Your task to perform on an android device: open app "Skype" Image 0: 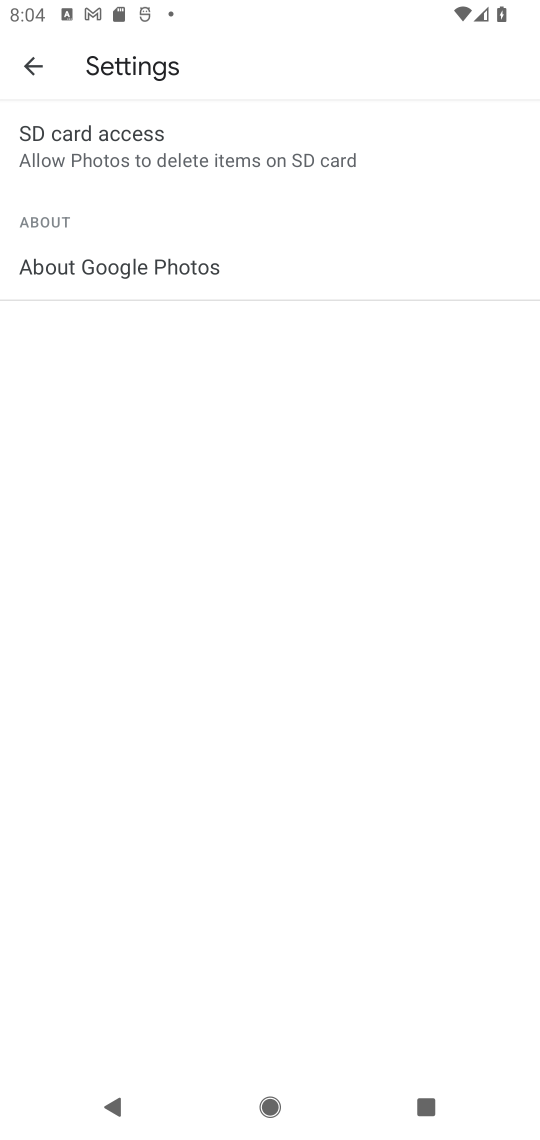
Step 0: press back button
Your task to perform on an android device: open app "Skype" Image 1: 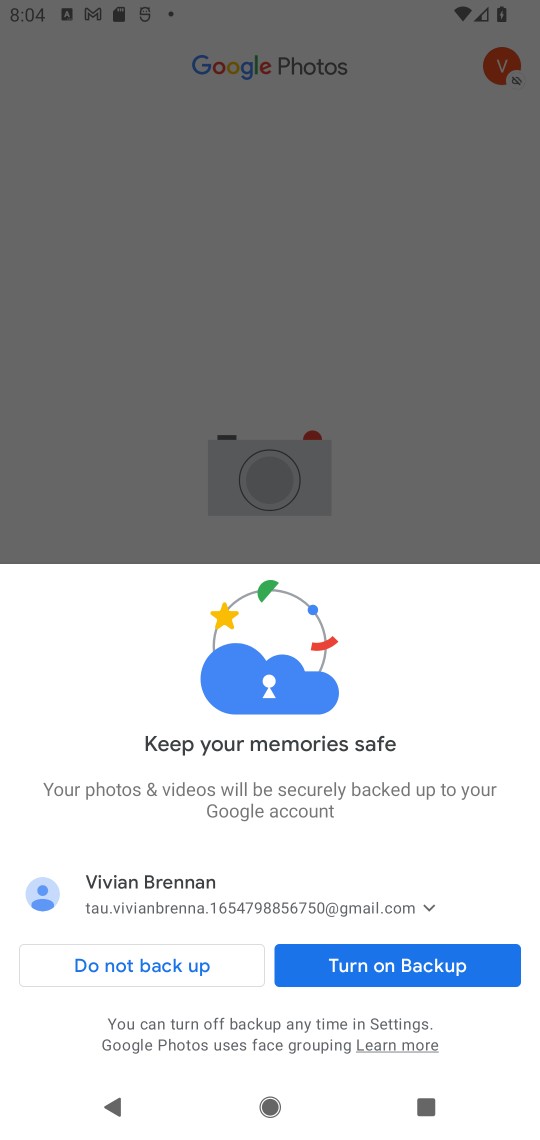
Step 1: press back button
Your task to perform on an android device: open app "Skype" Image 2: 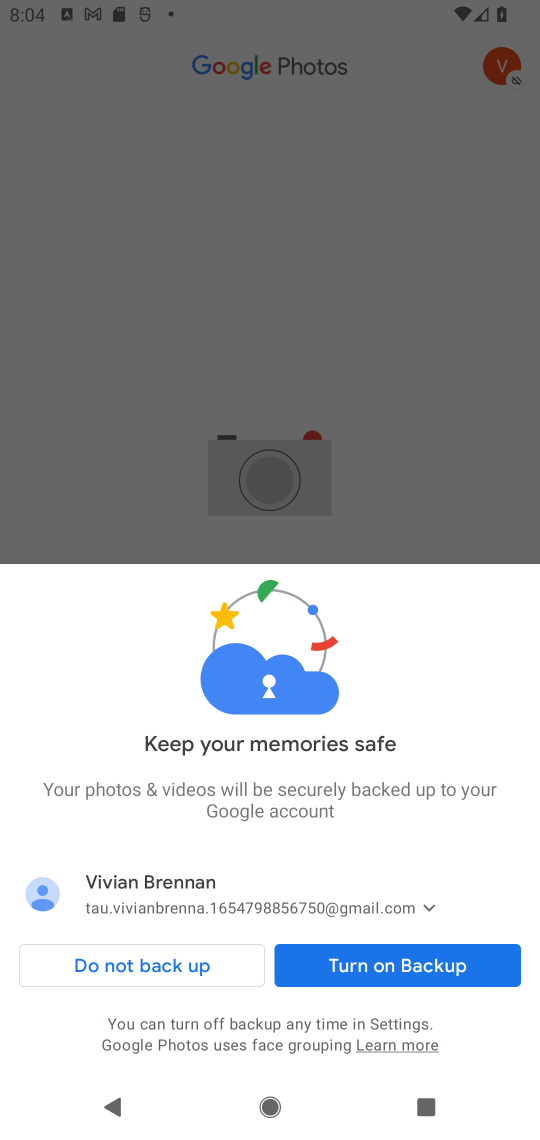
Step 2: press home button
Your task to perform on an android device: open app "Skype" Image 3: 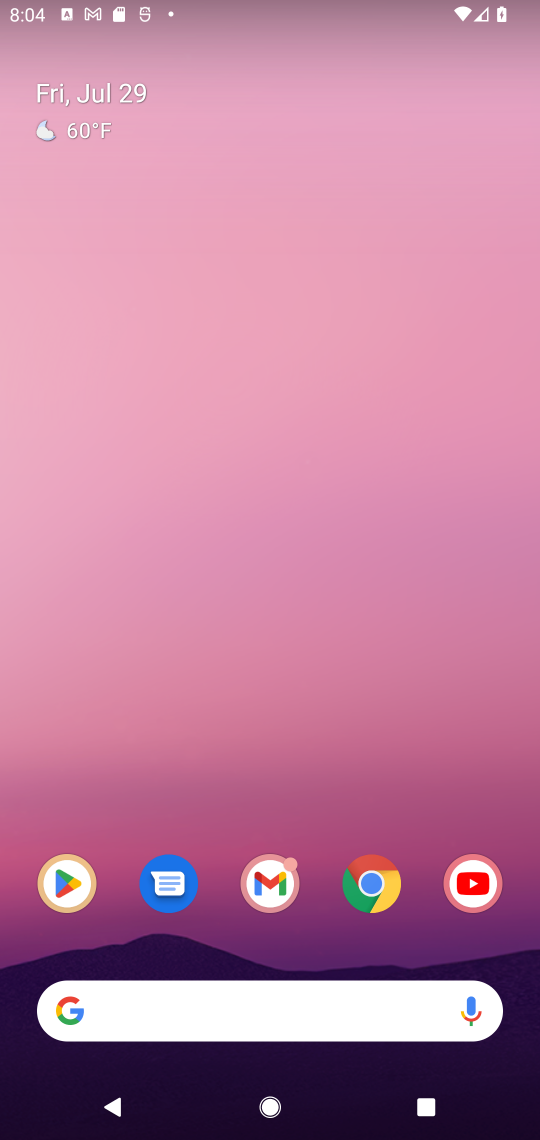
Step 3: click (90, 887)
Your task to perform on an android device: open app "Skype" Image 4: 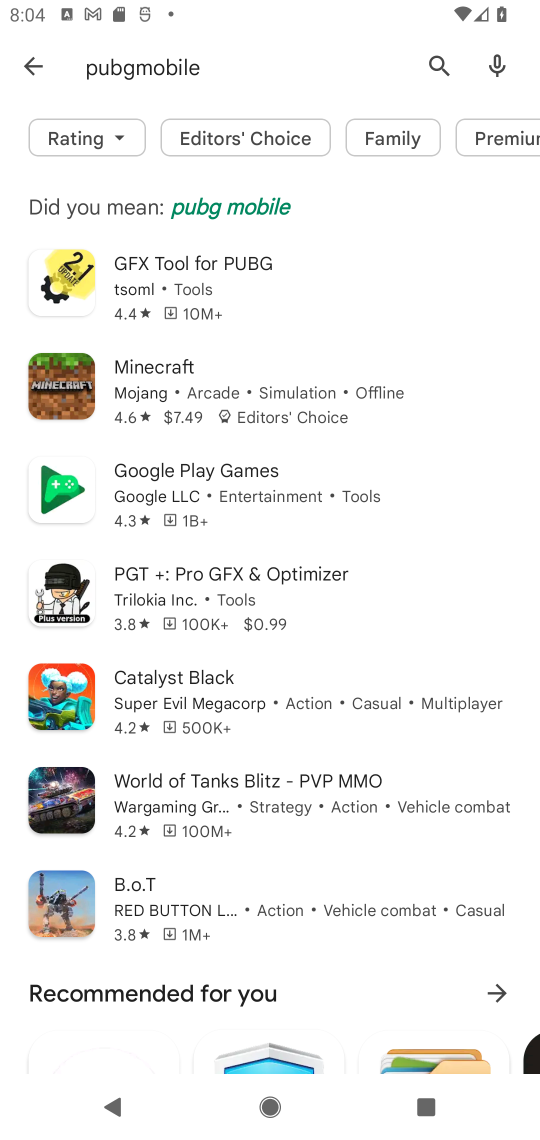
Step 4: click (448, 69)
Your task to perform on an android device: open app "Skype" Image 5: 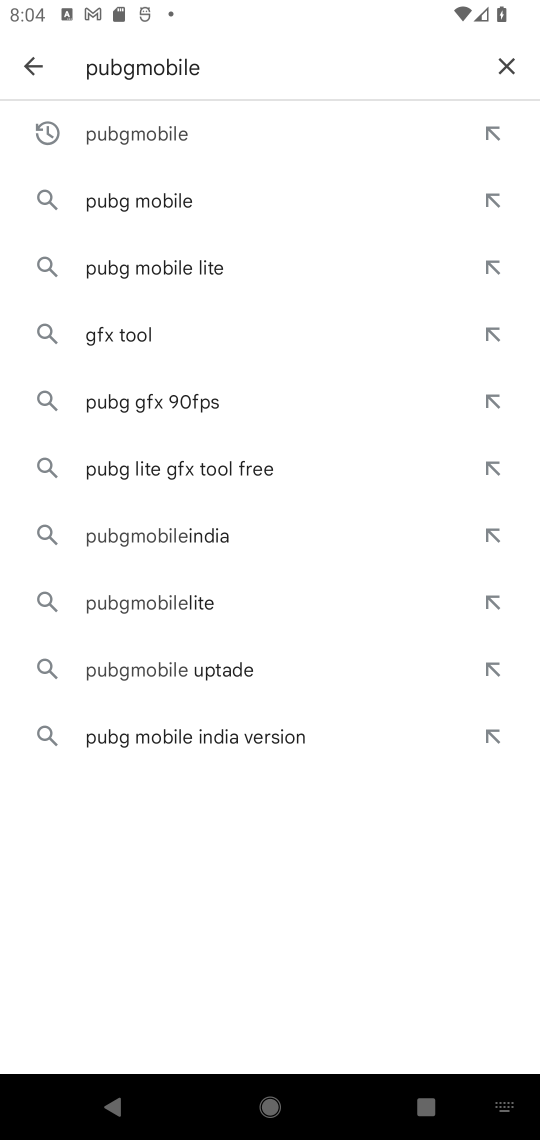
Step 5: click (507, 66)
Your task to perform on an android device: open app "Skype" Image 6: 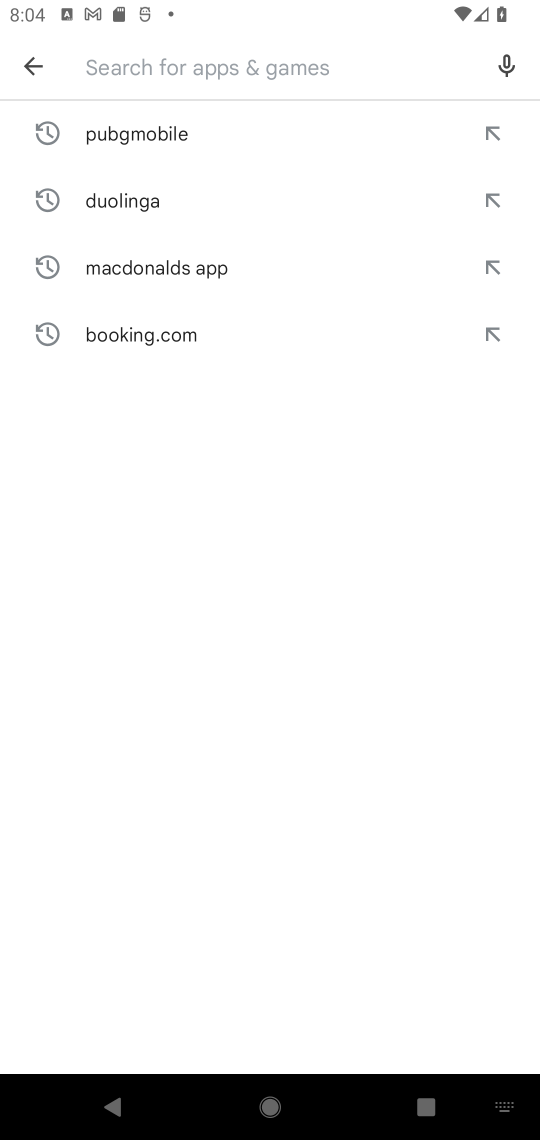
Step 6: click (179, 72)
Your task to perform on an android device: open app "Skype" Image 7: 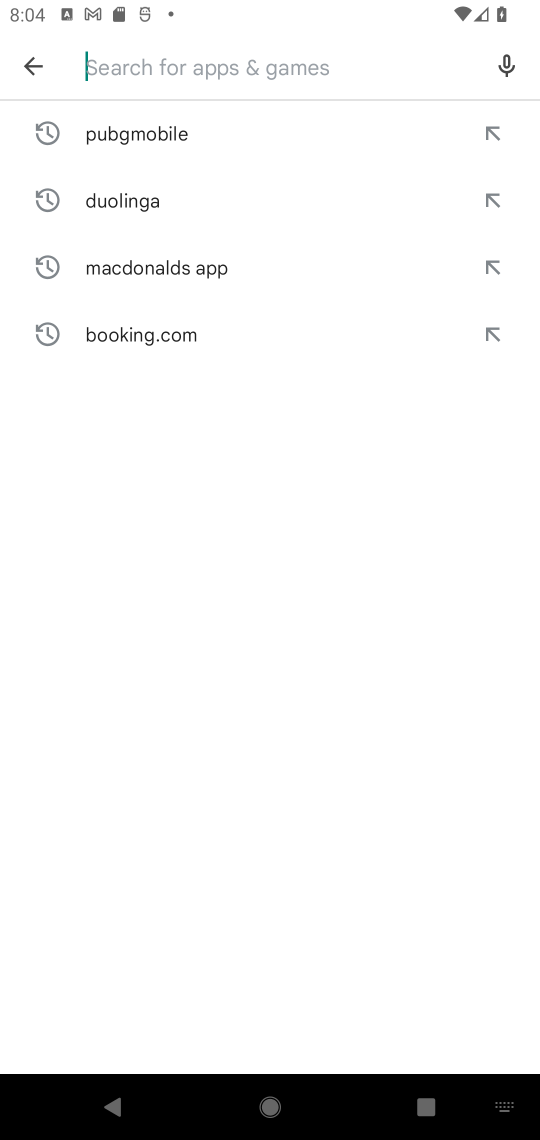
Step 7: type "skype"
Your task to perform on an android device: open app "Skype" Image 8: 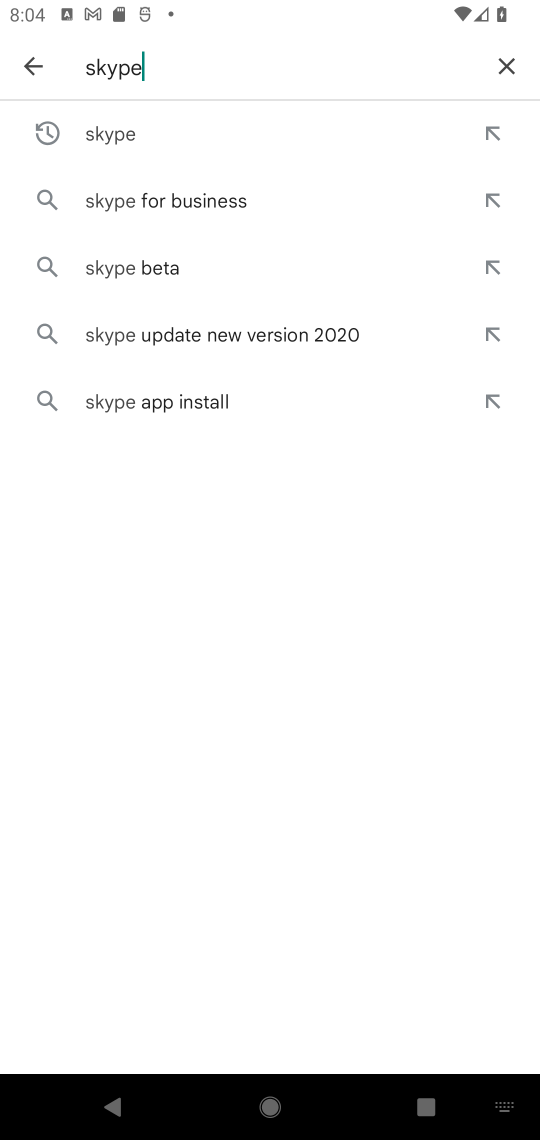
Step 8: click (116, 133)
Your task to perform on an android device: open app "Skype" Image 9: 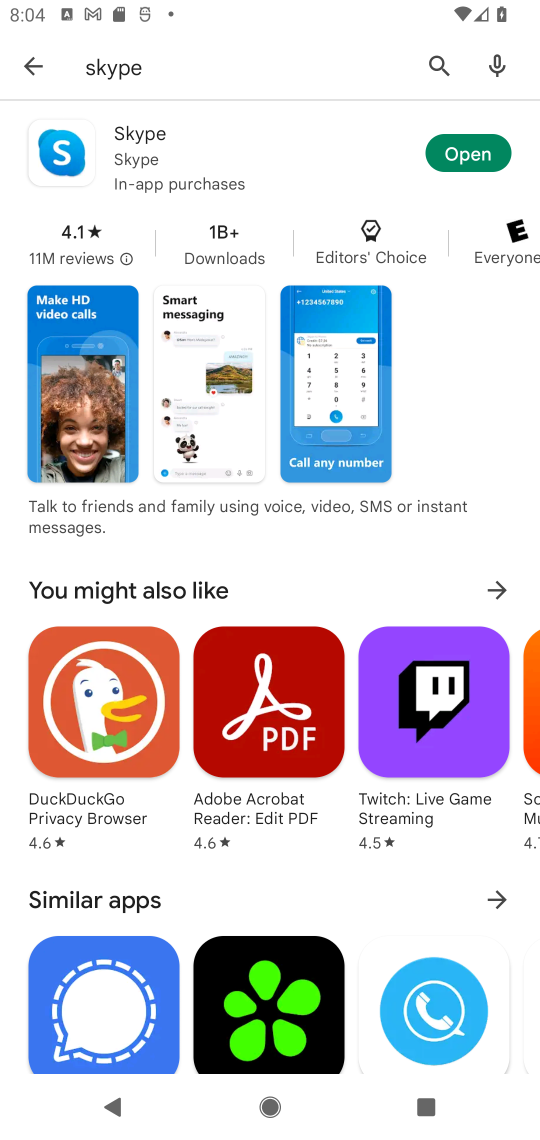
Step 9: click (483, 152)
Your task to perform on an android device: open app "Skype" Image 10: 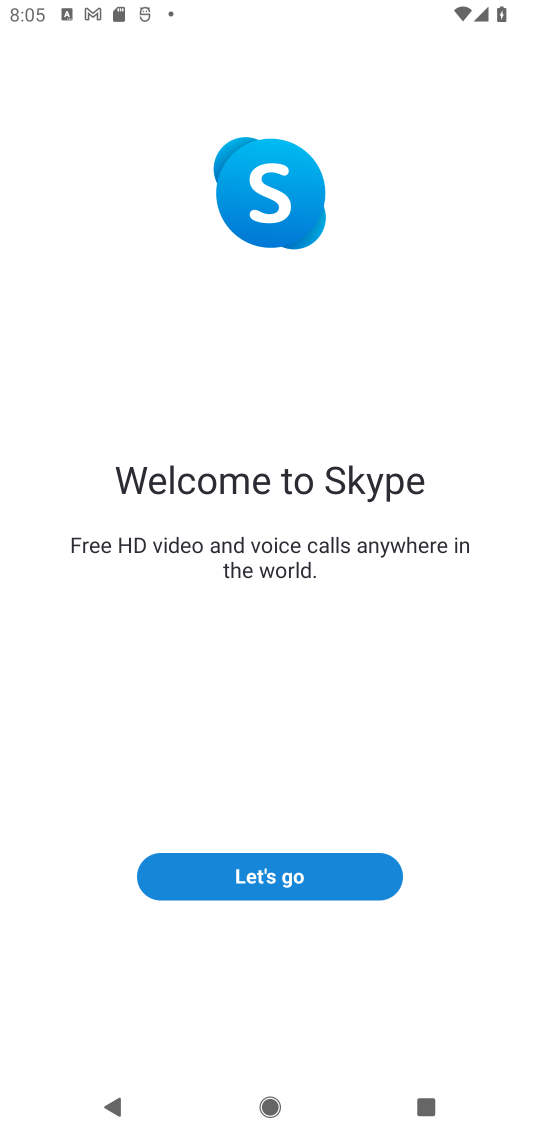
Step 10: task complete